Your task to perform on an android device: Open Google Chrome Image 0: 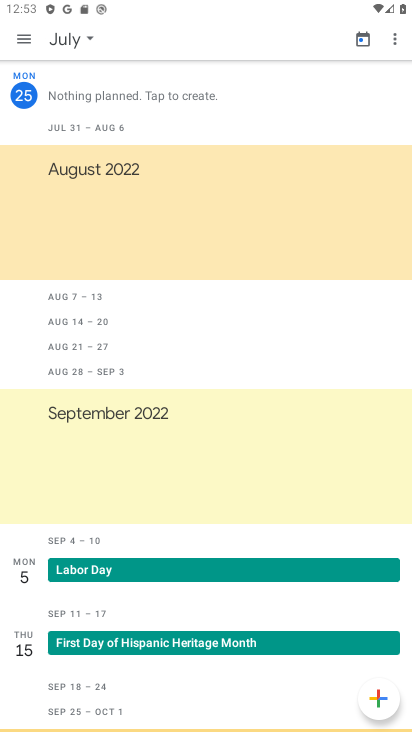
Step 0: press home button
Your task to perform on an android device: Open Google Chrome Image 1: 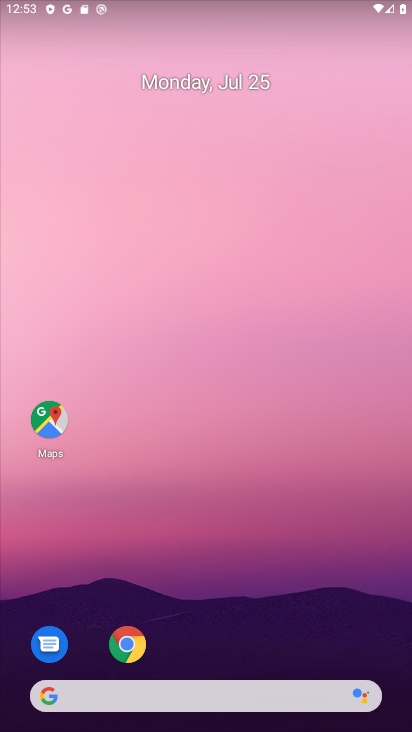
Step 1: click (125, 643)
Your task to perform on an android device: Open Google Chrome Image 2: 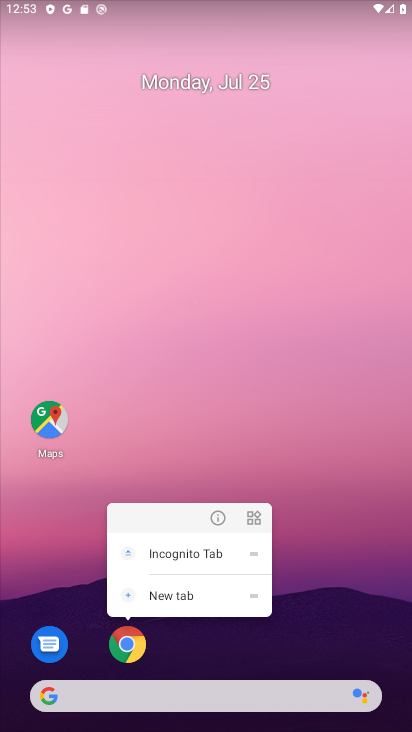
Step 2: click (125, 643)
Your task to perform on an android device: Open Google Chrome Image 3: 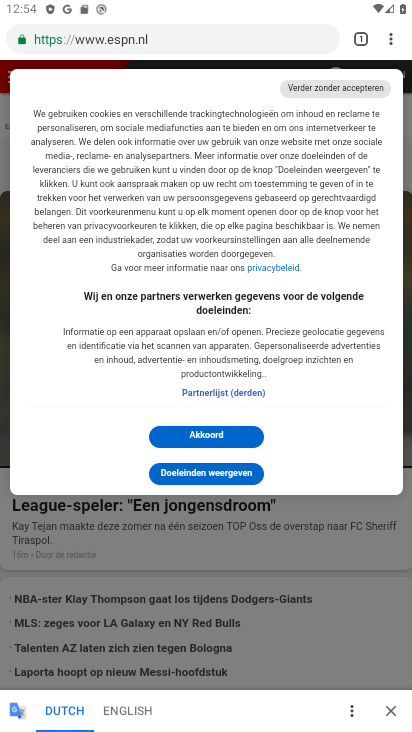
Step 3: task complete